Your task to perform on an android device: change the upload size in google photos Image 0: 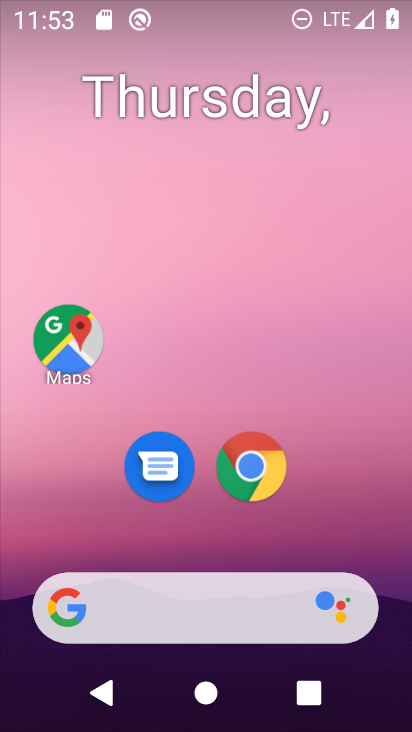
Step 0: drag from (279, 661) to (355, 36)
Your task to perform on an android device: change the upload size in google photos Image 1: 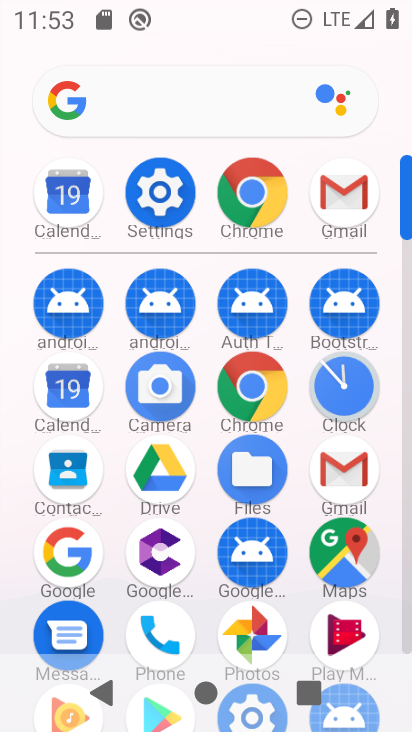
Step 1: click (254, 636)
Your task to perform on an android device: change the upload size in google photos Image 2: 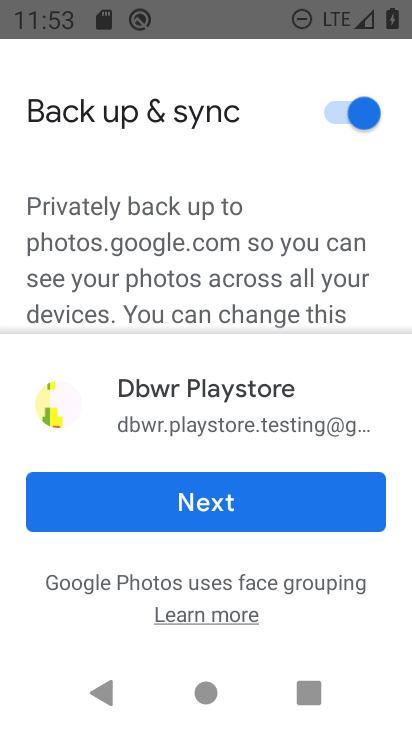
Step 2: click (267, 498)
Your task to perform on an android device: change the upload size in google photos Image 3: 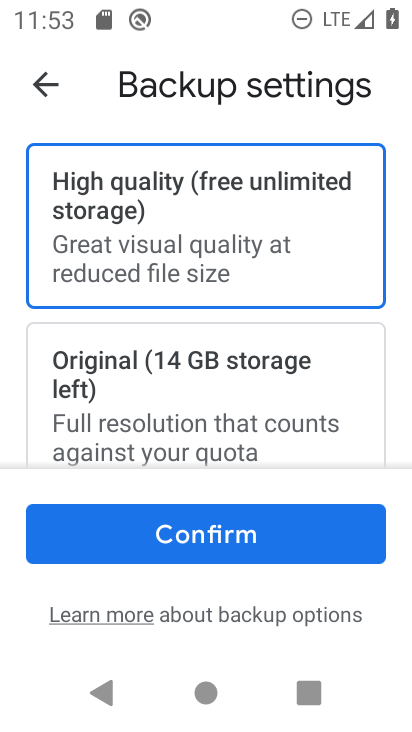
Step 3: click (256, 544)
Your task to perform on an android device: change the upload size in google photos Image 4: 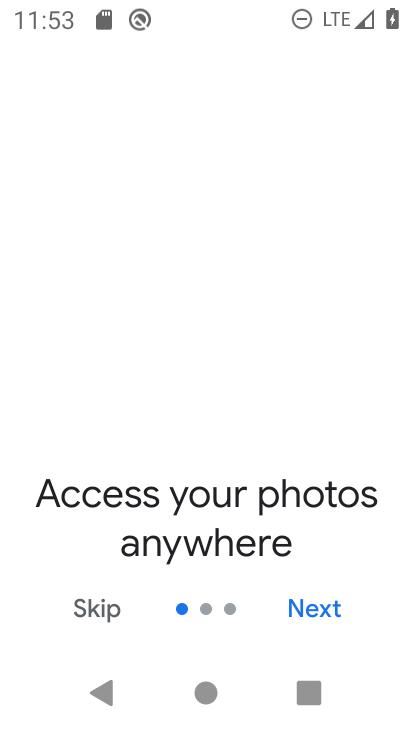
Step 4: click (336, 611)
Your task to perform on an android device: change the upload size in google photos Image 5: 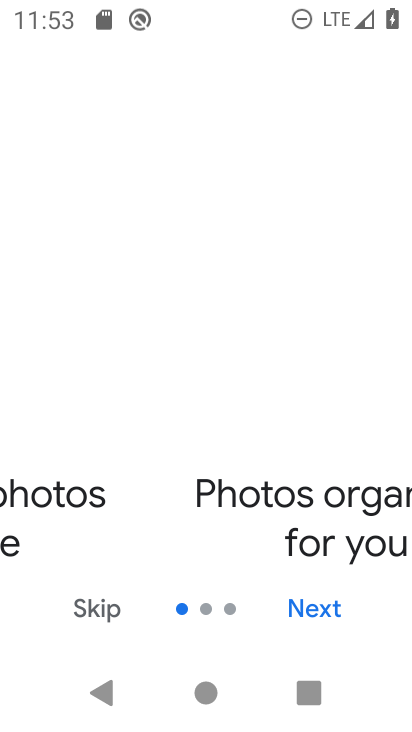
Step 5: click (336, 611)
Your task to perform on an android device: change the upload size in google photos Image 6: 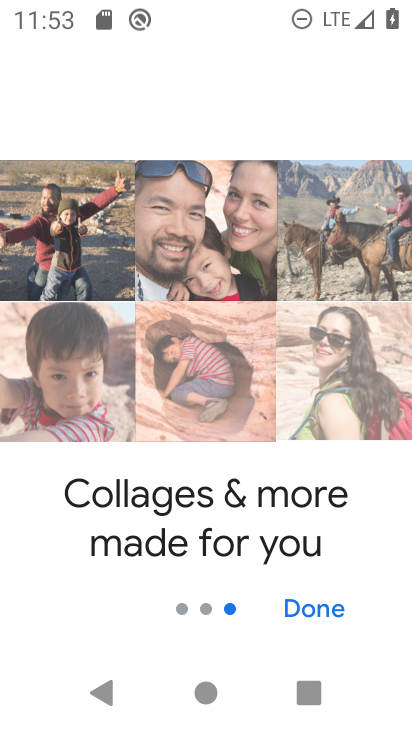
Step 6: click (336, 611)
Your task to perform on an android device: change the upload size in google photos Image 7: 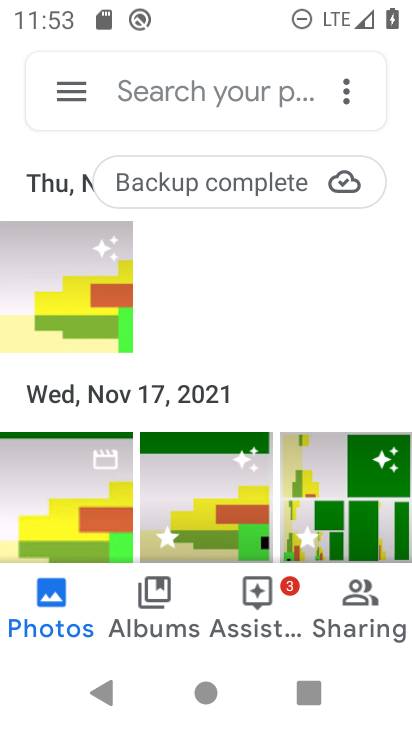
Step 7: click (72, 98)
Your task to perform on an android device: change the upload size in google photos Image 8: 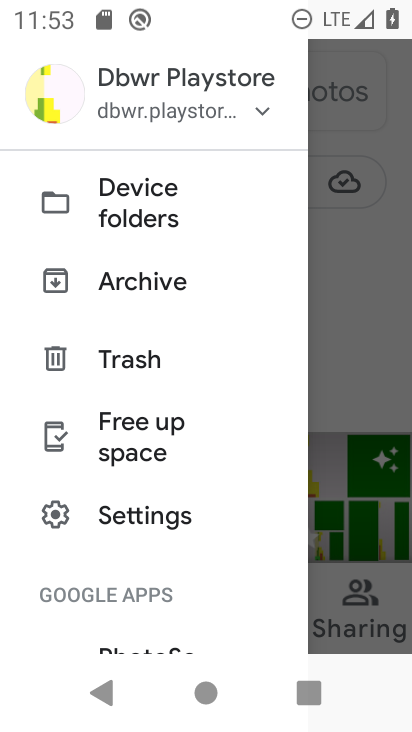
Step 8: click (169, 518)
Your task to perform on an android device: change the upload size in google photos Image 9: 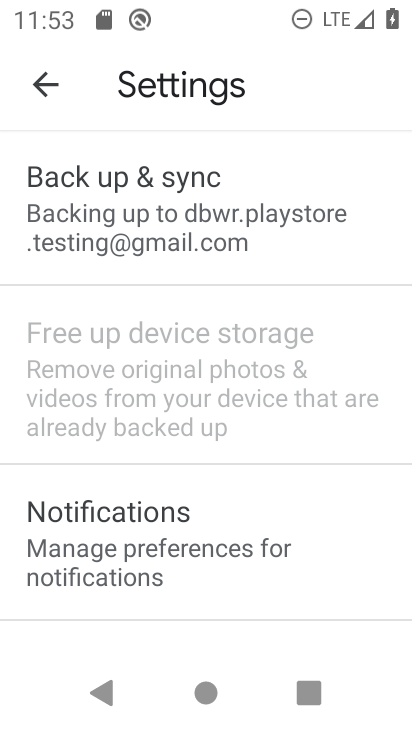
Step 9: click (181, 206)
Your task to perform on an android device: change the upload size in google photos Image 10: 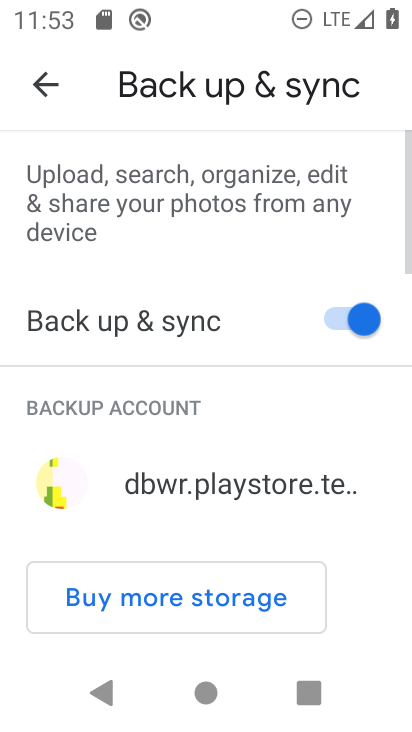
Step 10: drag from (286, 543) to (254, 96)
Your task to perform on an android device: change the upload size in google photos Image 11: 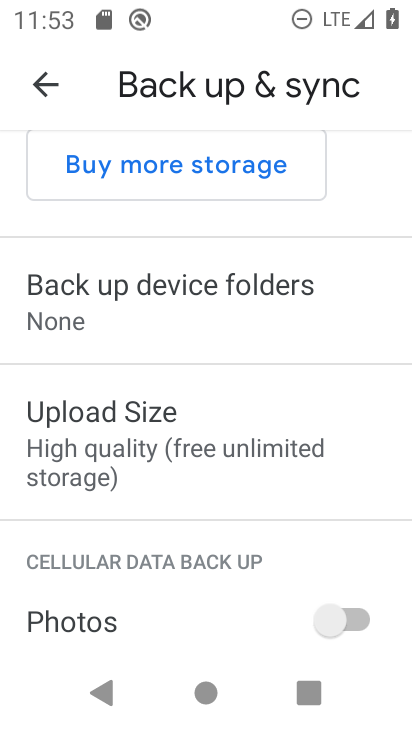
Step 11: click (177, 456)
Your task to perform on an android device: change the upload size in google photos Image 12: 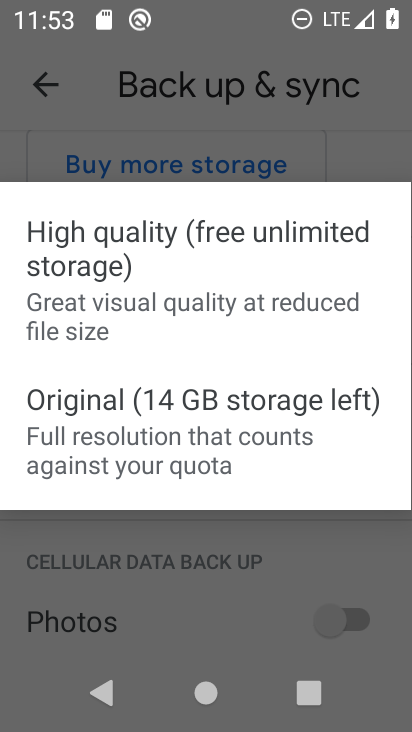
Step 12: click (148, 421)
Your task to perform on an android device: change the upload size in google photos Image 13: 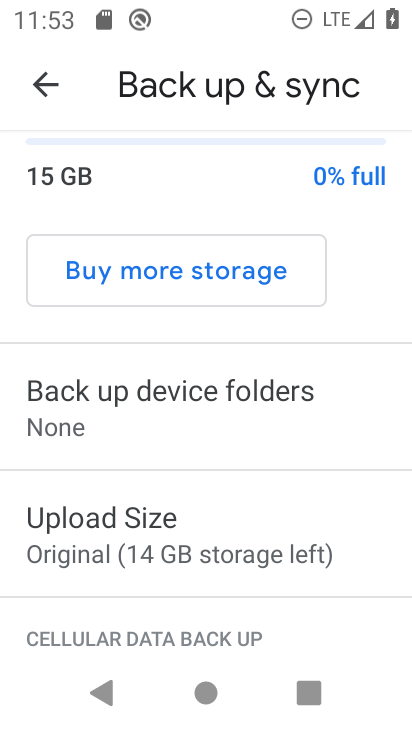
Step 13: task complete